Your task to perform on an android device: Search for "razer blade" on target, select the first entry, add it to the cart, then select checkout. Image 0: 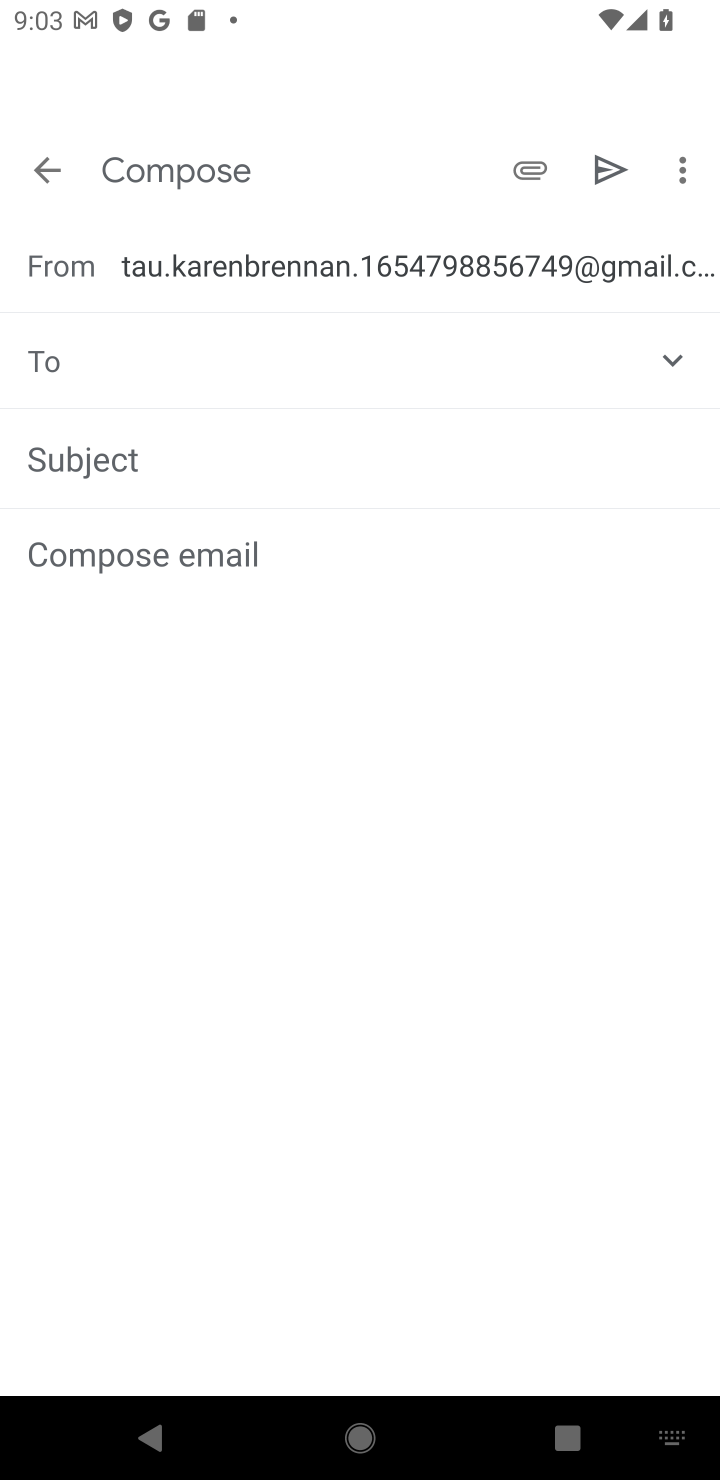
Step 0: press home button
Your task to perform on an android device: Search for "razer blade" on target, select the first entry, add it to the cart, then select checkout. Image 1: 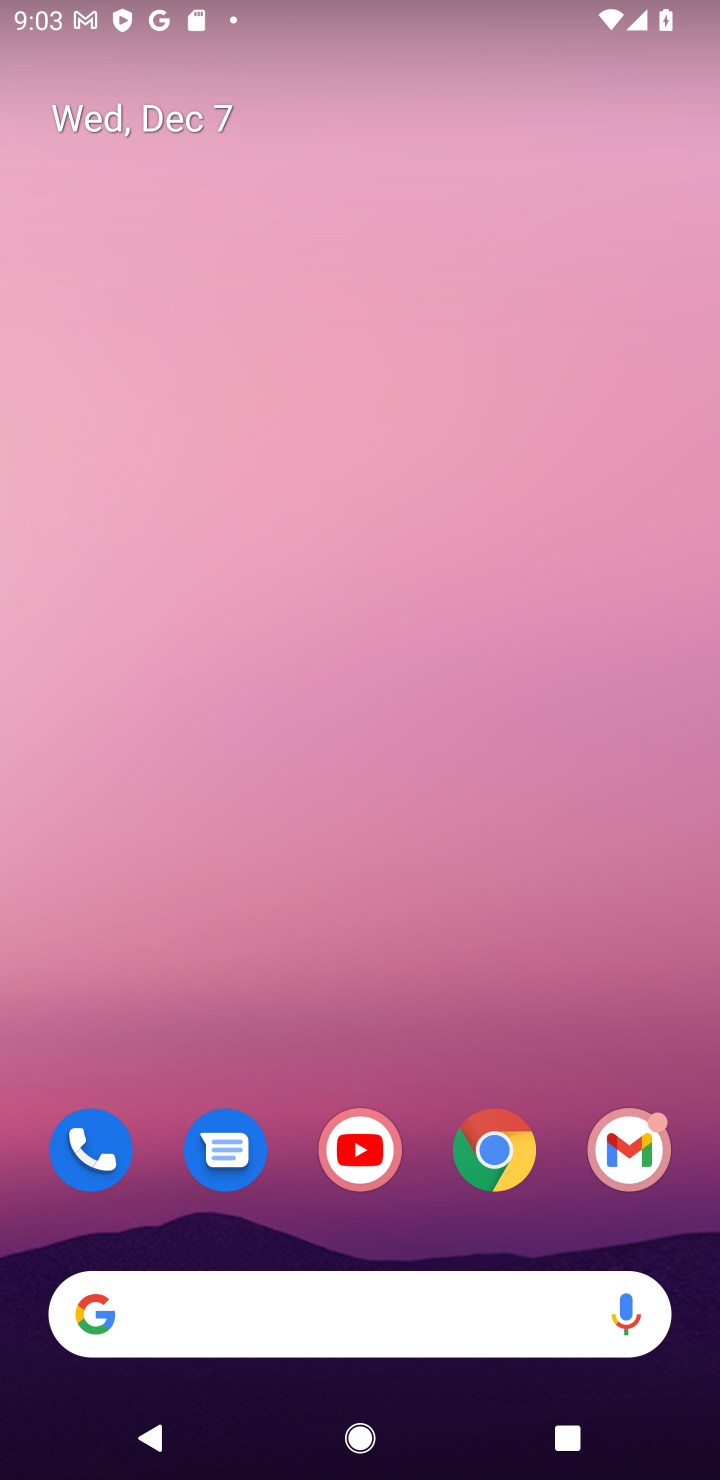
Step 1: click (501, 1161)
Your task to perform on an android device: Search for "razer blade" on target, select the first entry, add it to the cart, then select checkout. Image 2: 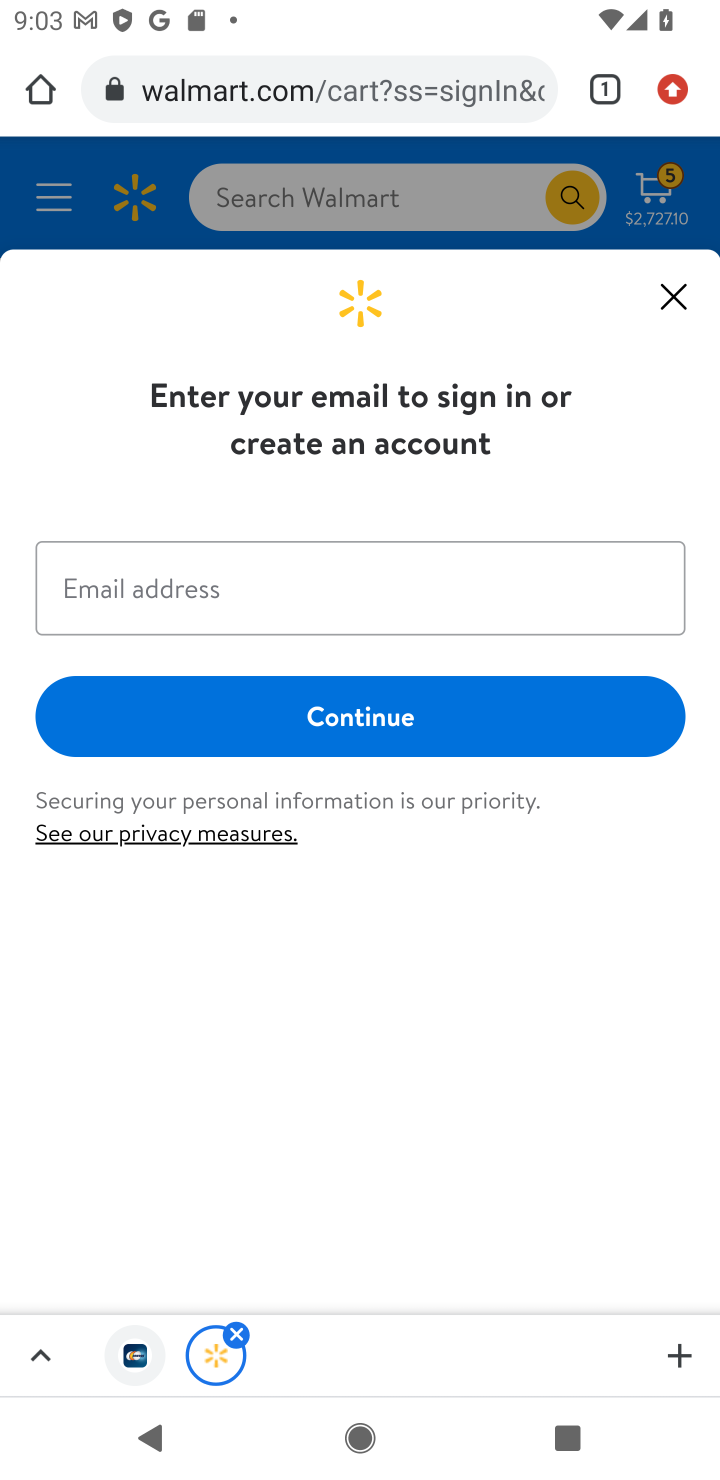
Step 2: click (334, 106)
Your task to perform on an android device: Search for "razer blade" on target, select the first entry, add it to the cart, then select checkout. Image 3: 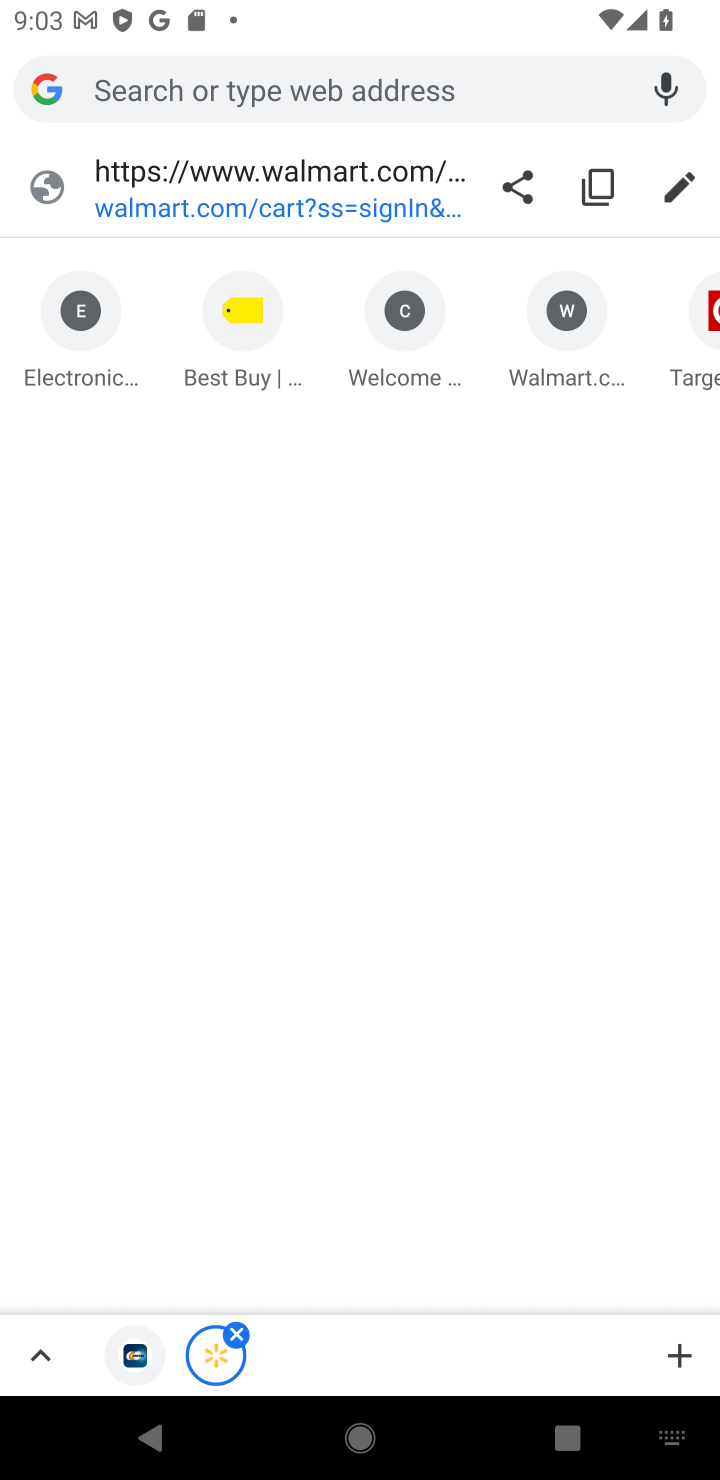
Step 3: click (702, 374)
Your task to perform on an android device: Search for "razer blade" on target, select the first entry, add it to the cart, then select checkout. Image 4: 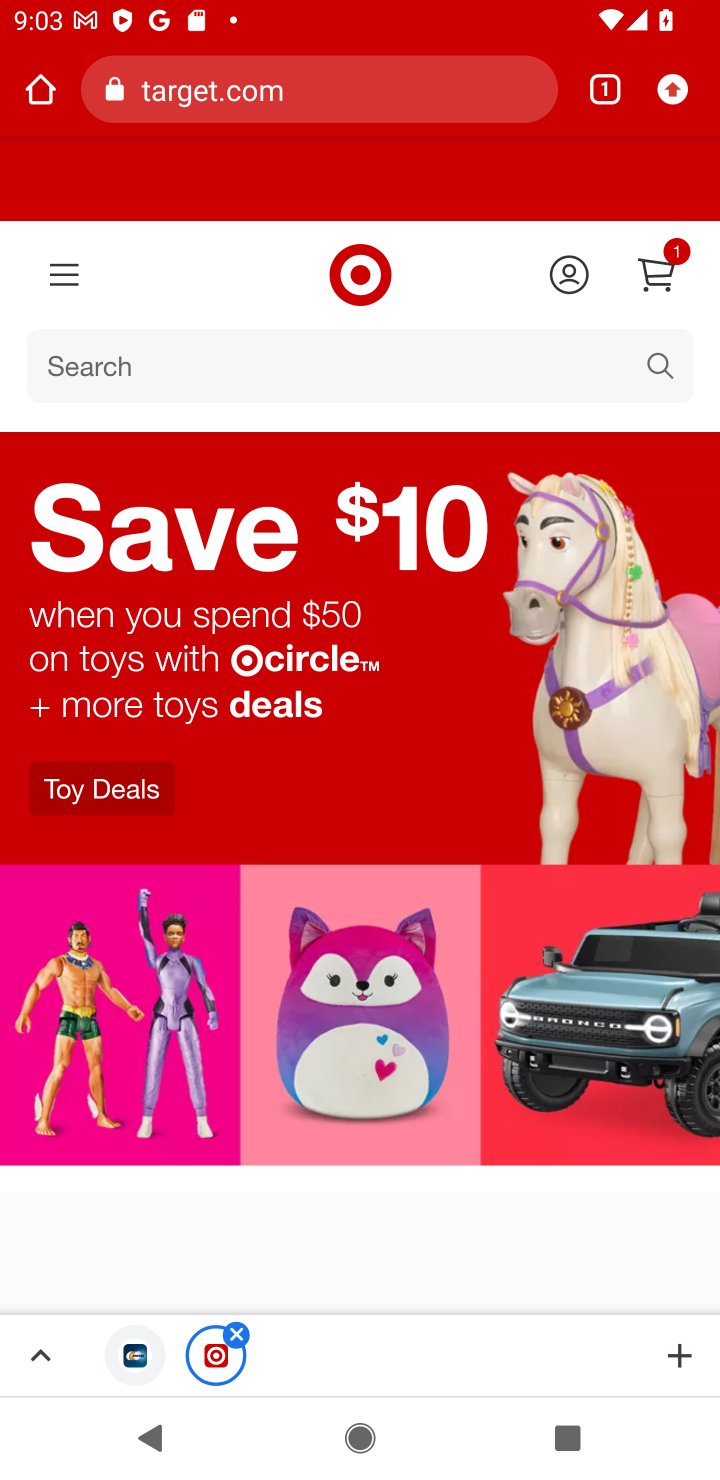
Step 4: click (233, 374)
Your task to perform on an android device: Search for "razer blade" on target, select the first entry, add it to the cart, then select checkout. Image 5: 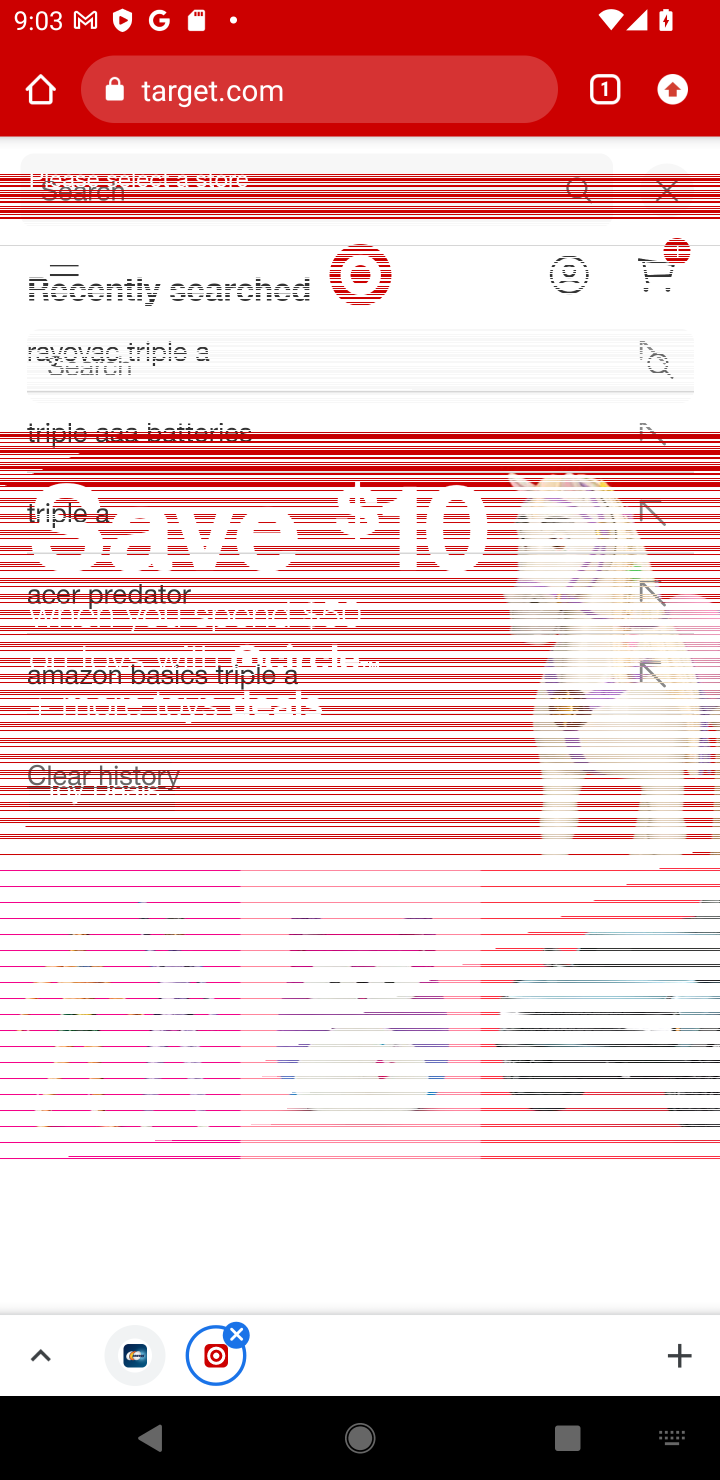
Step 5: type "razer blade"
Your task to perform on an android device: Search for "razer blade" on target, select the first entry, add it to the cart, then select checkout. Image 6: 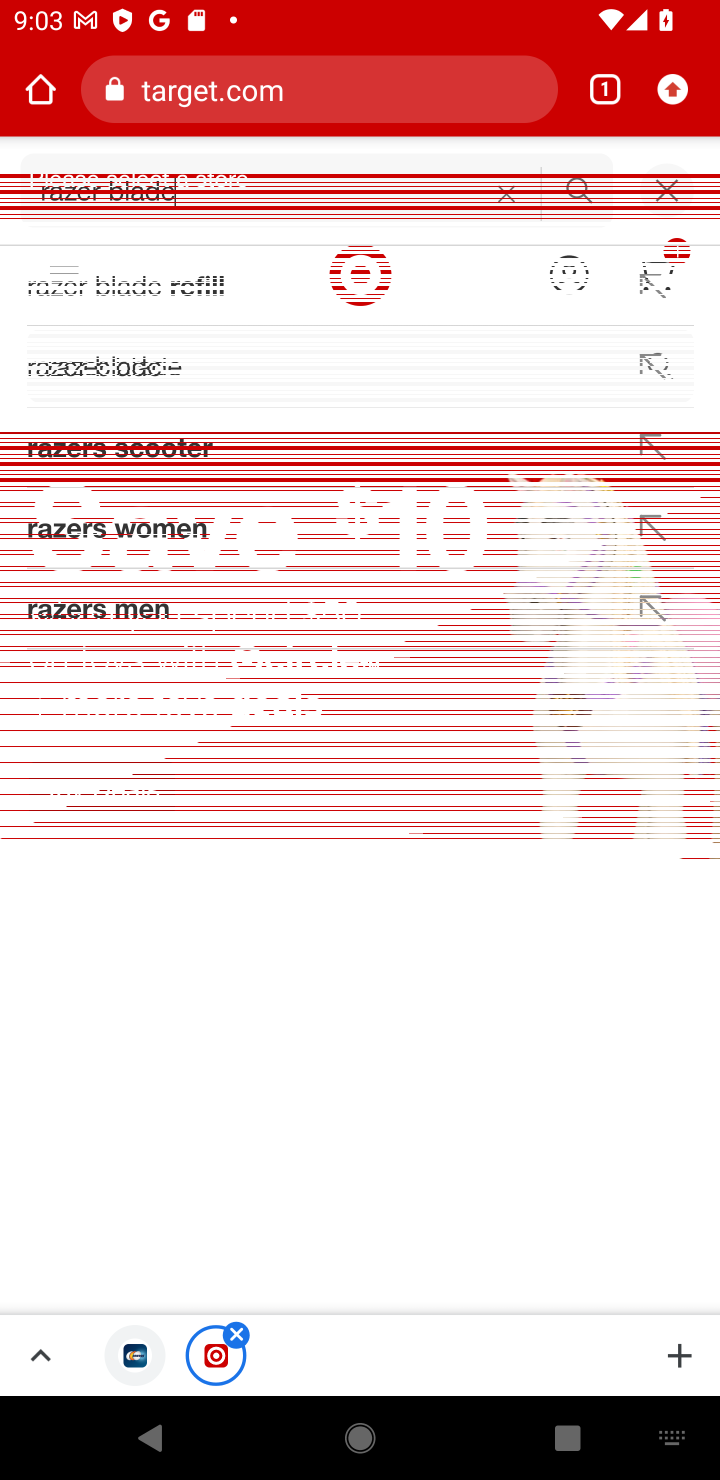
Step 6: press enter
Your task to perform on an android device: Search for "razer blade" on target, select the first entry, add it to the cart, then select checkout. Image 7: 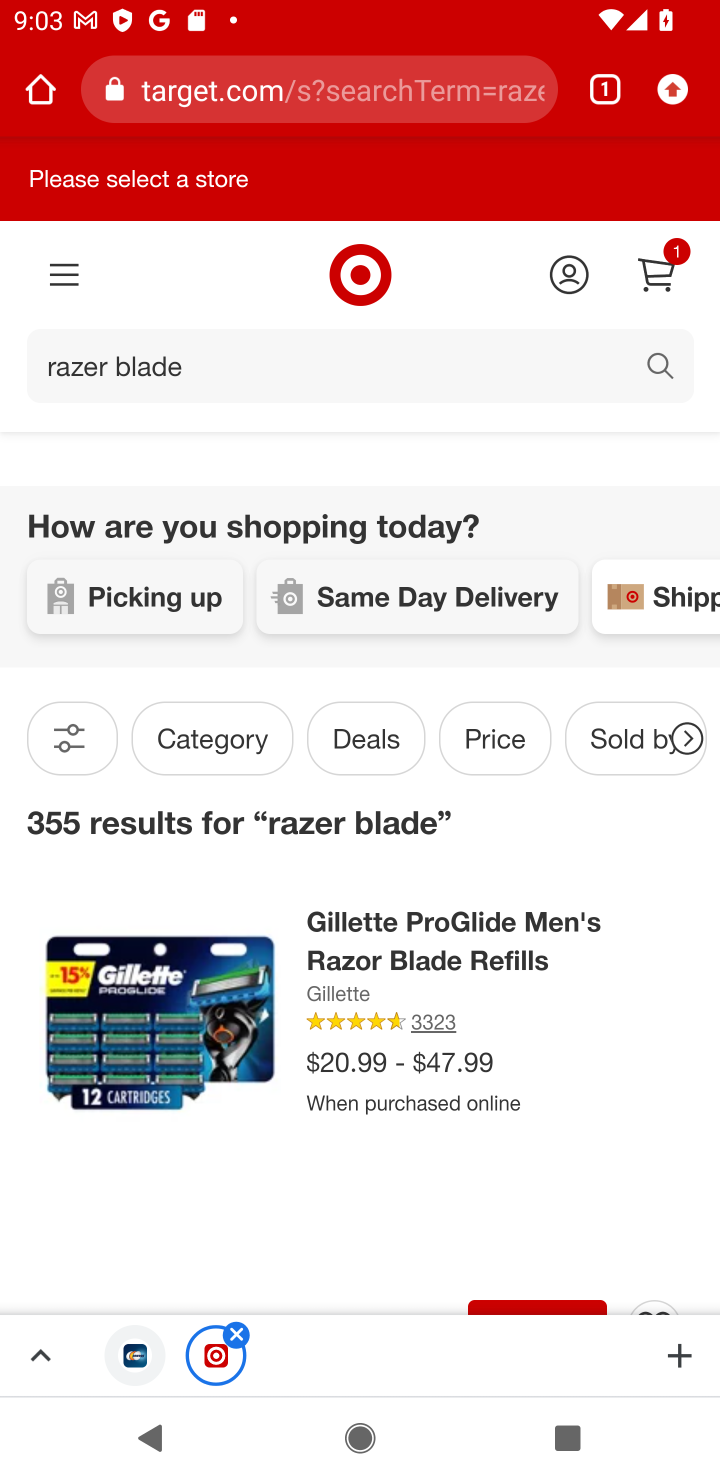
Step 7: task complete